Your task to perform on an android device: snooze an email in the gmail app Image 0: 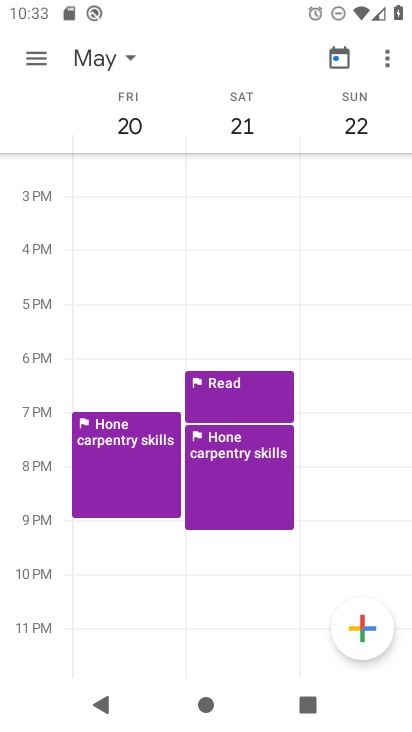
Step 0: press home button
Your task to perform on an android device: snooze an email in the gmail app Image 1: 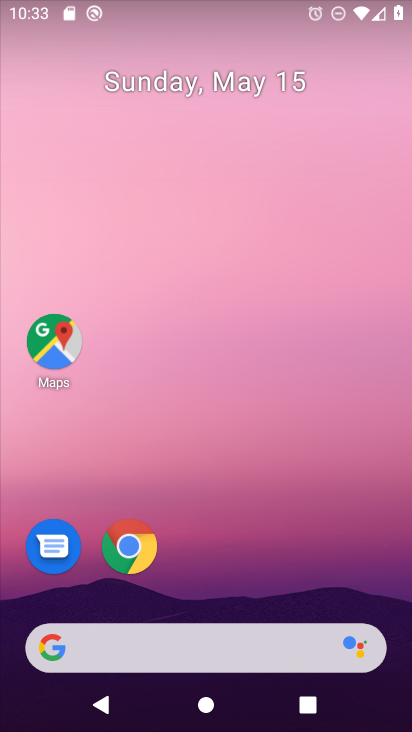
Step 1: drag from (350, 564) to (294, 62)
Your task to perform on an android device: snooze an email in the gmail app Image 2: 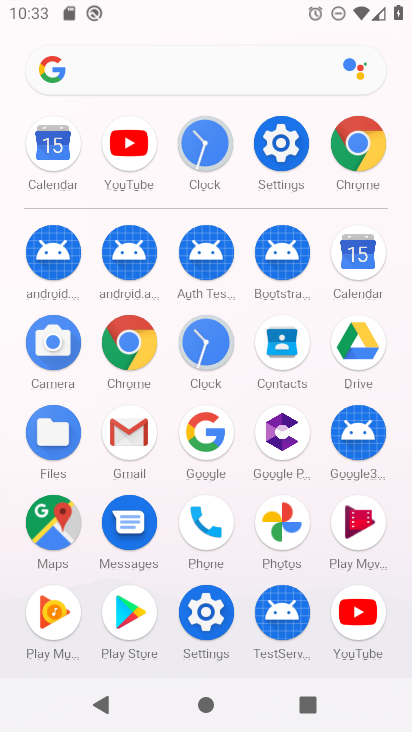
Step 2: click (131, 423)
Your task to perform on an android device: snooze an email in the gmail app Image 3: 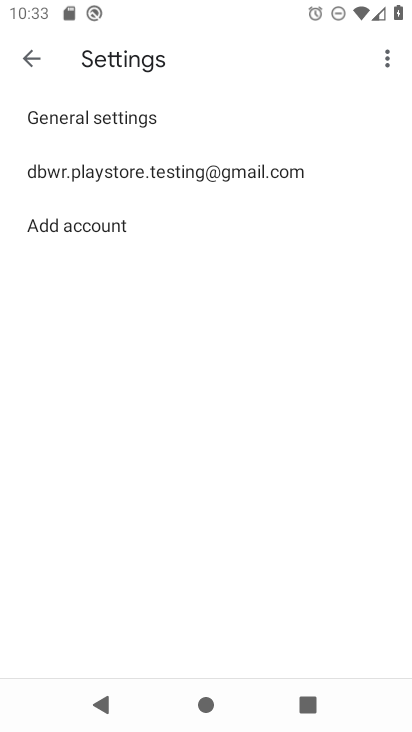
Step 3: click (33, 46)
Your task to perform on an android device: snooze an email in the gmail app Image 4: 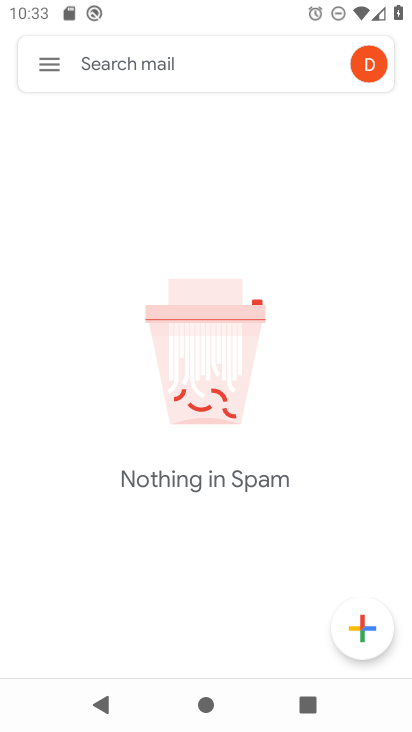
Step 4: click (31, 49)
Your task to perform on an android device: snooze an email in the gmail app Image 5: 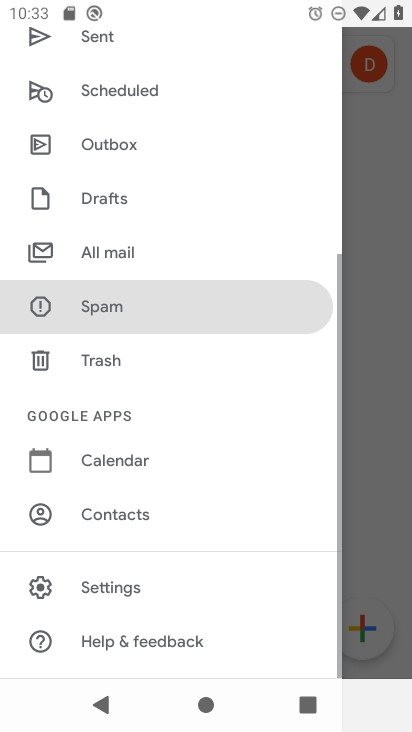
Step 5: click (111, 258)
Your task to perform on an android device: snooze an email in the gmail app Image 6: 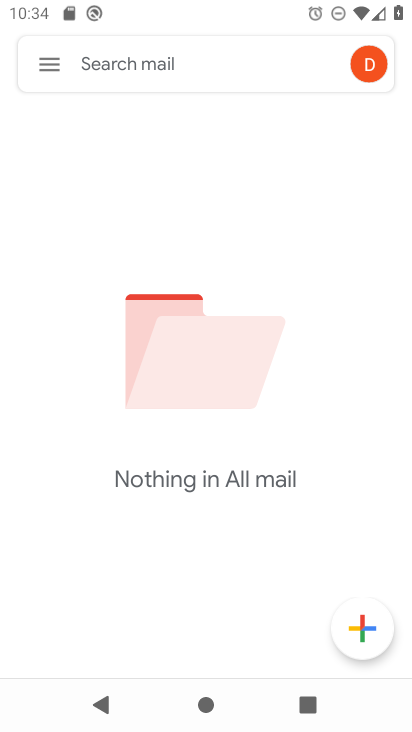
Step 6: task complete